Your task to perform on an android device: change timer sound Image 0: 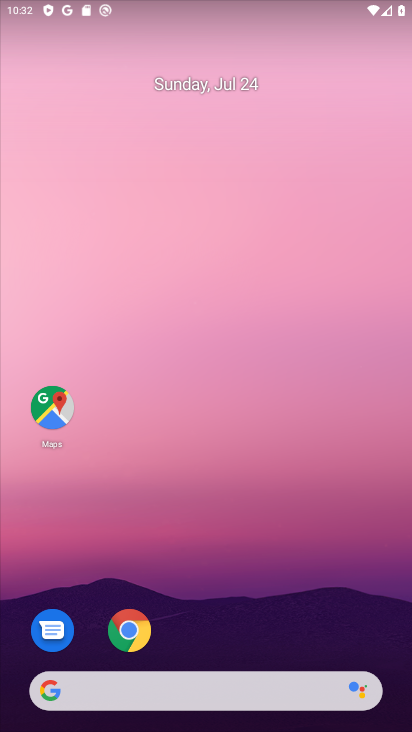
Step 0: press home button
Your task to perform on an android device: change timer sound Image 1: 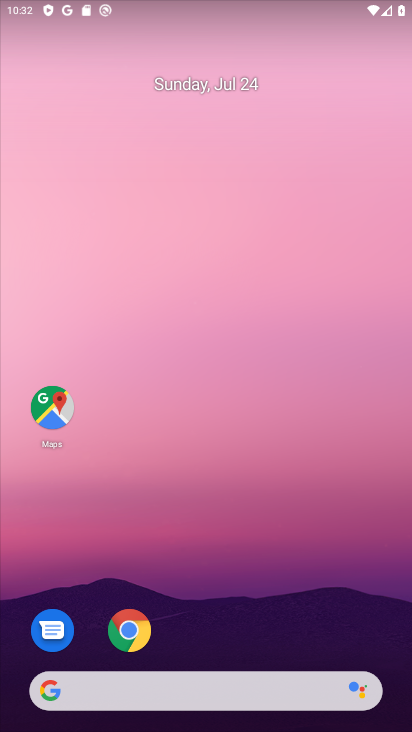
Step 1: drag from (222, 631) to (233, 131)
Your task to perform on an android device: change timer sound Image 2: 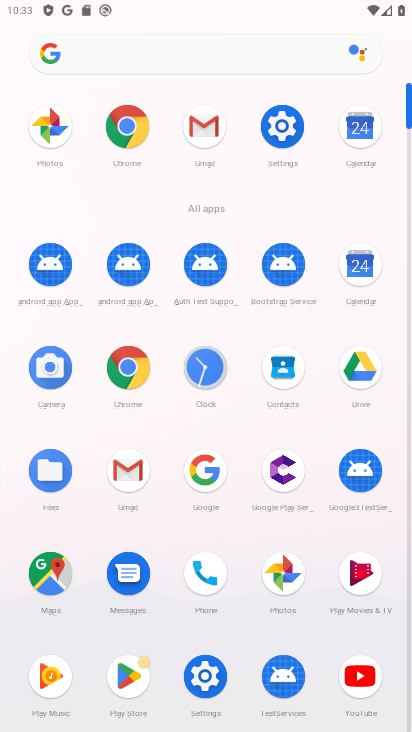
Step 2: click (208, 357)
Your task to perform on an android device: change timer sound Image 3: 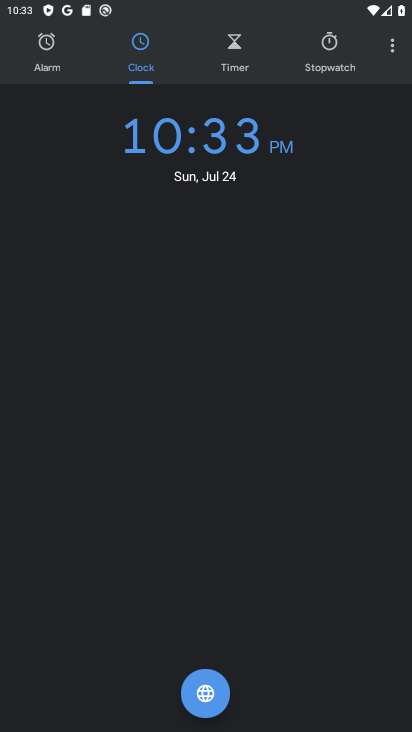
Step 3: click (387, 43)
Your task to perform on an android device: change timer sound Image 4: 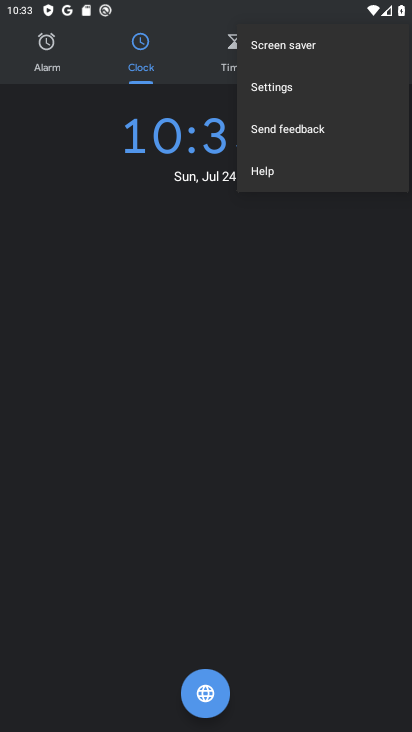
Step 4: click (267, 89)
Your task to perform on an android device: change timer sound Image 5: 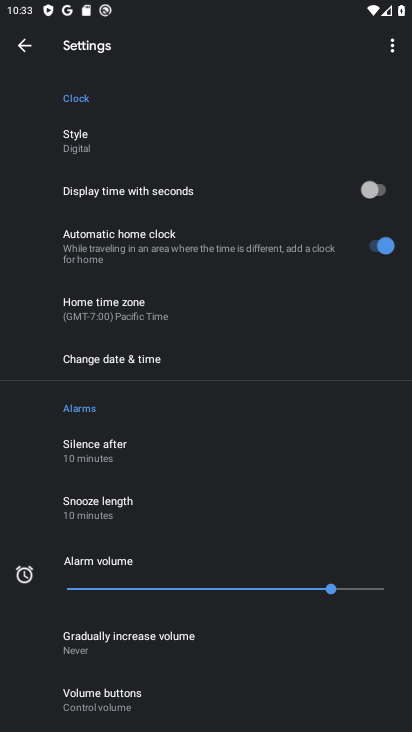
Step 5: drag from (217, 528) to (221, 289)
Your task to perform on an android device: change timer sound Image 6: 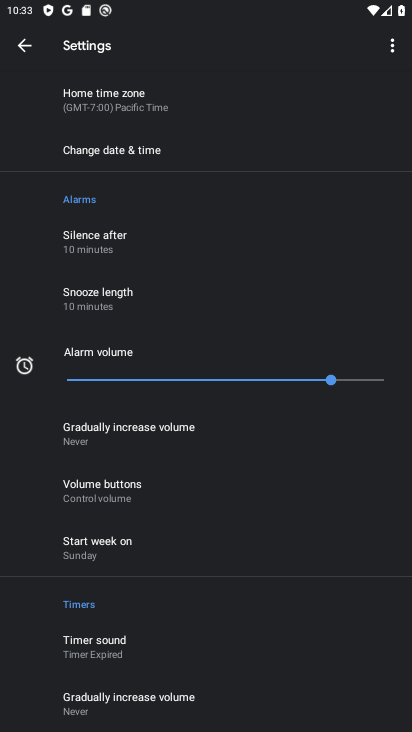
Step 6: click (105, 662)
Your task to perform on an android device: change timer sound Image 7: 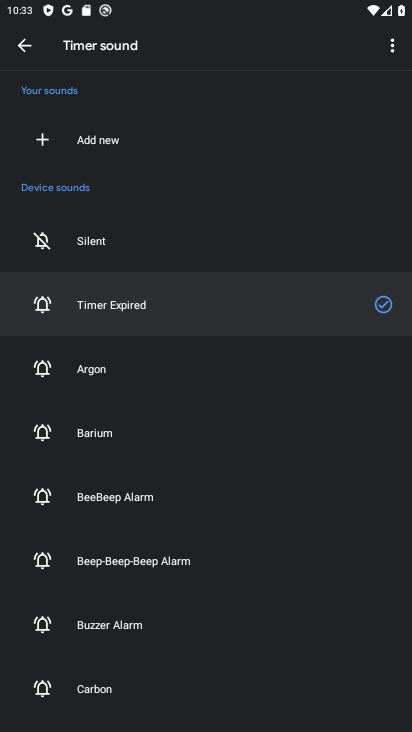
Step 7: click (95, 373)
Your task to perform on an android device: change timer sound Image 8: 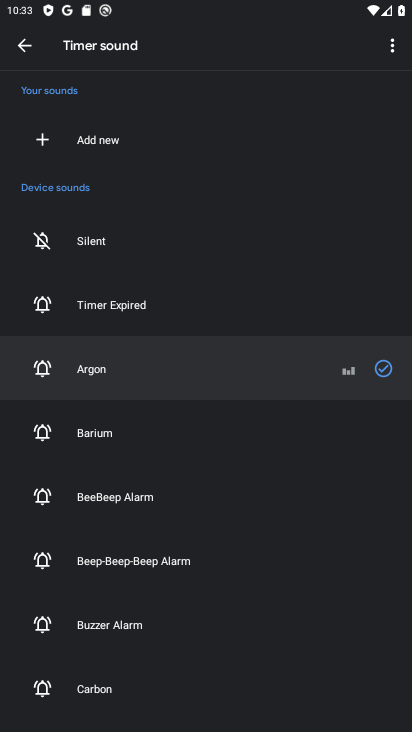
Step 8: task complete